Your task to perform on an android device: allow cookies in the chrome app Image 0: 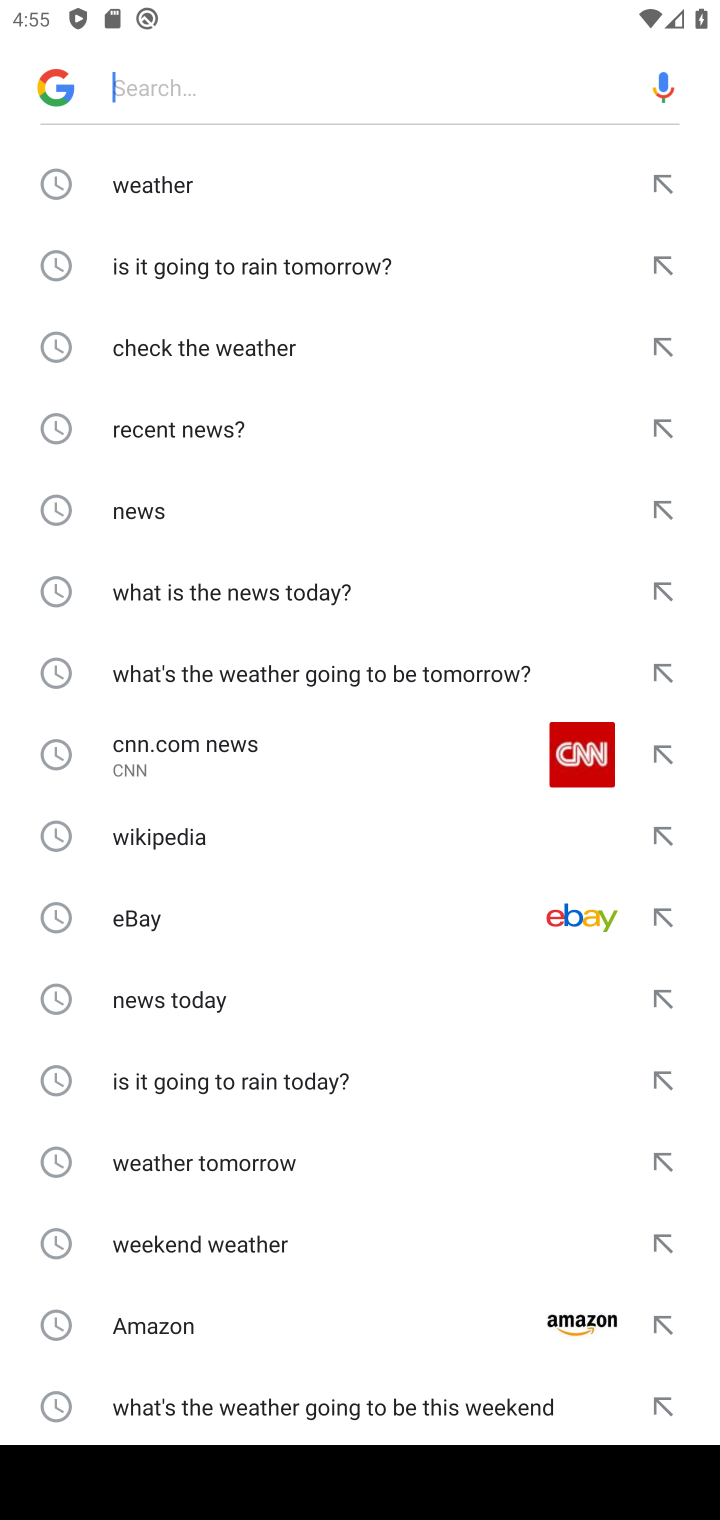
Step 0: press home button
Your task to perform on an android device: allow cookies in the chrome app Image 1: 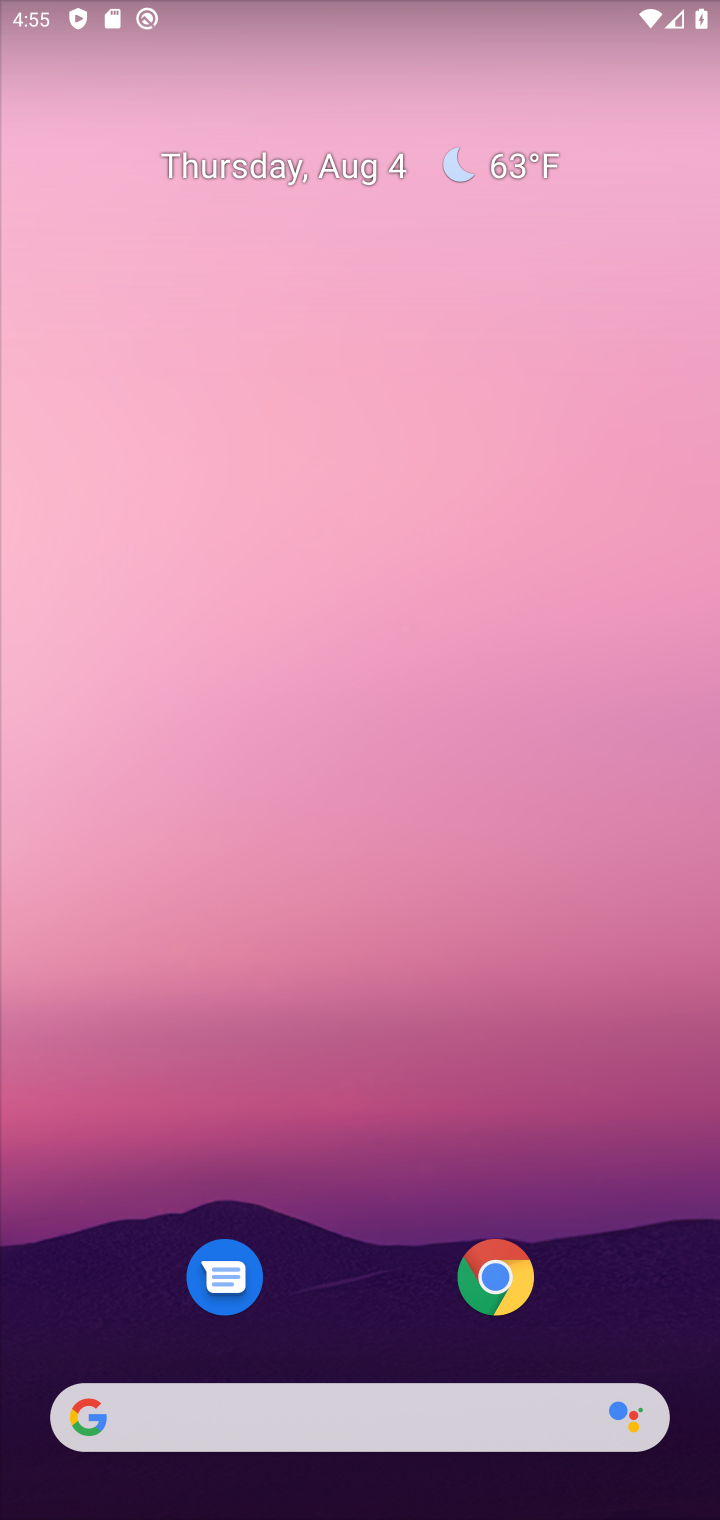
Step 1: drag from (365, 978) to (406, 601)
Your task to perform on an android device: allow cookies in the chrome app Image 2: 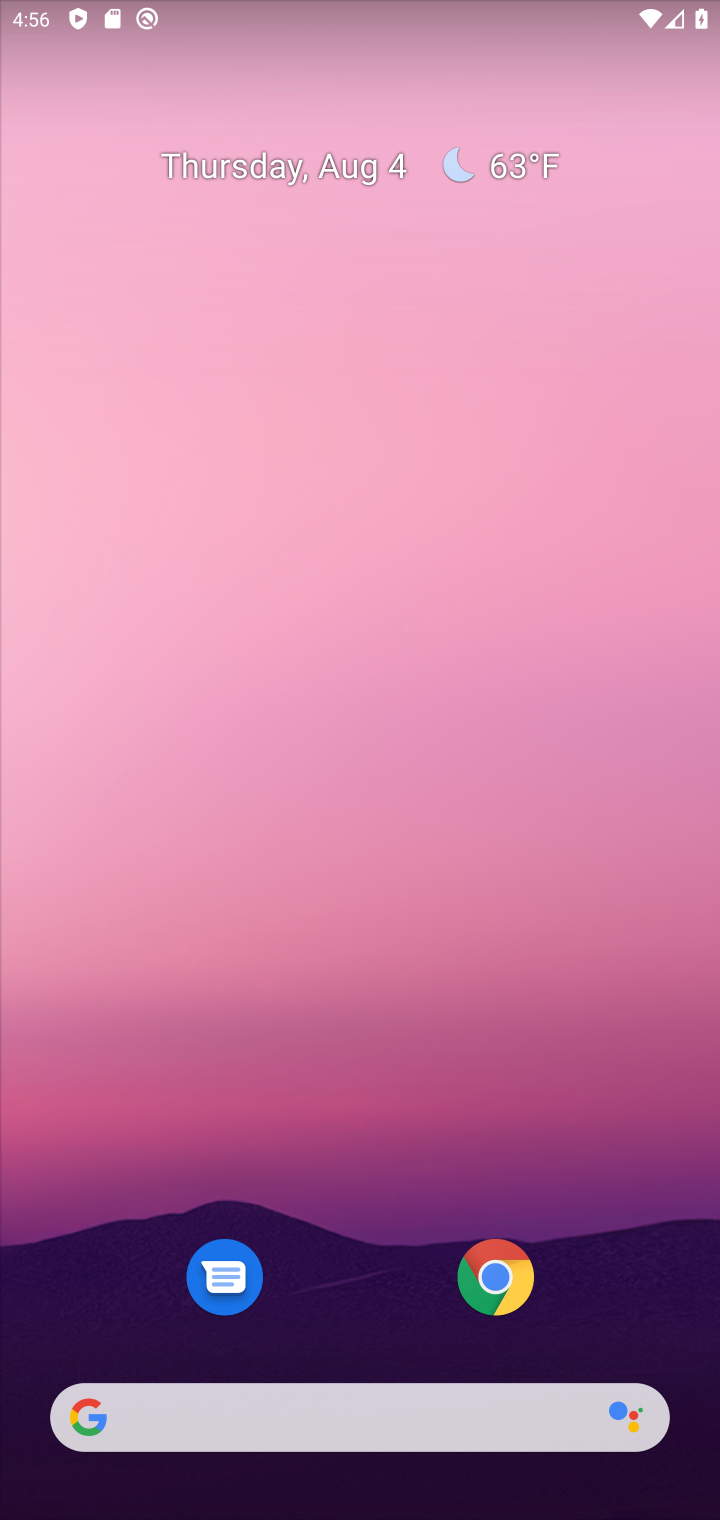
Step 2: drag from (485, 385) to (481, 97)
Your task to perform on an android device: allow cookies in the chrome app Image 3: 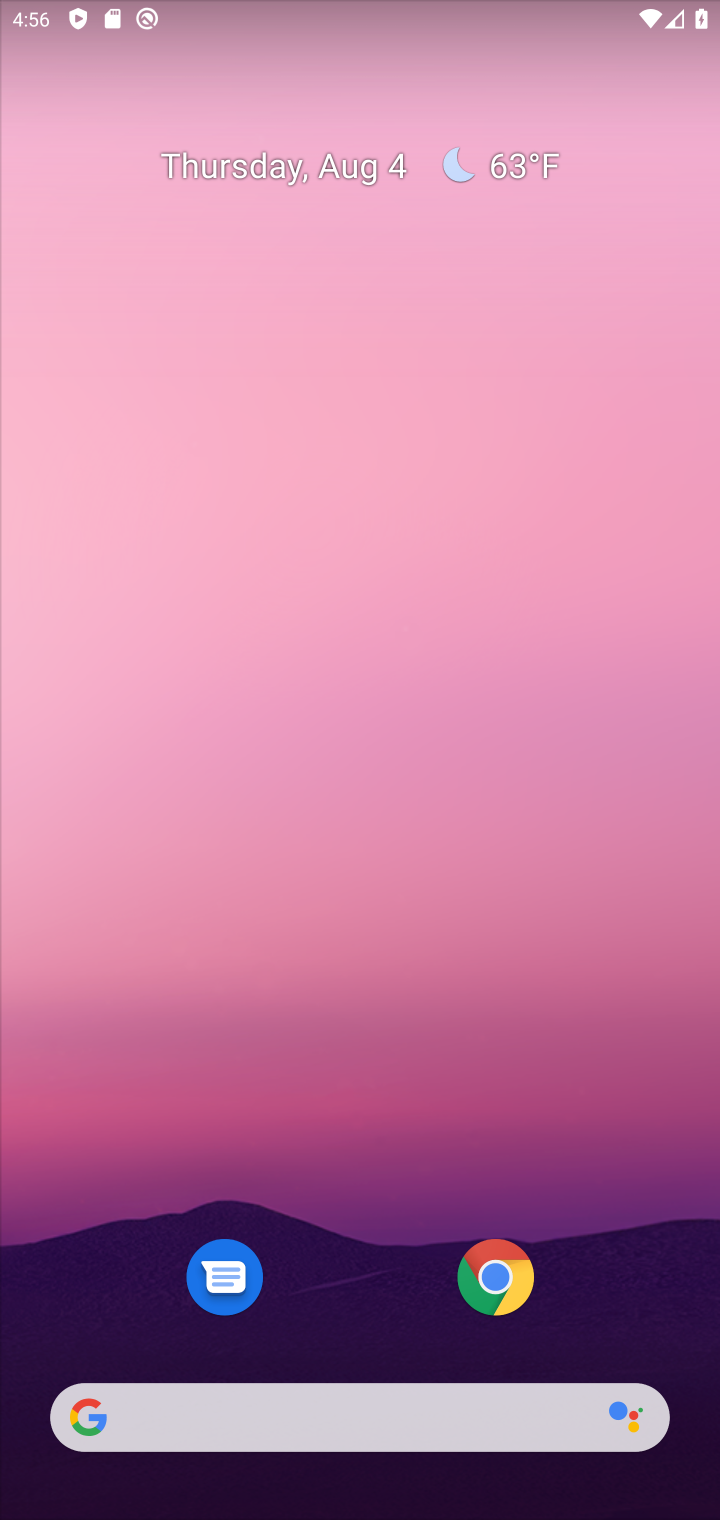
Step 3: drag from (377, 906) to (344, 179)
Your task to perform on an android device: allow cookies in the chrome app Image 4: 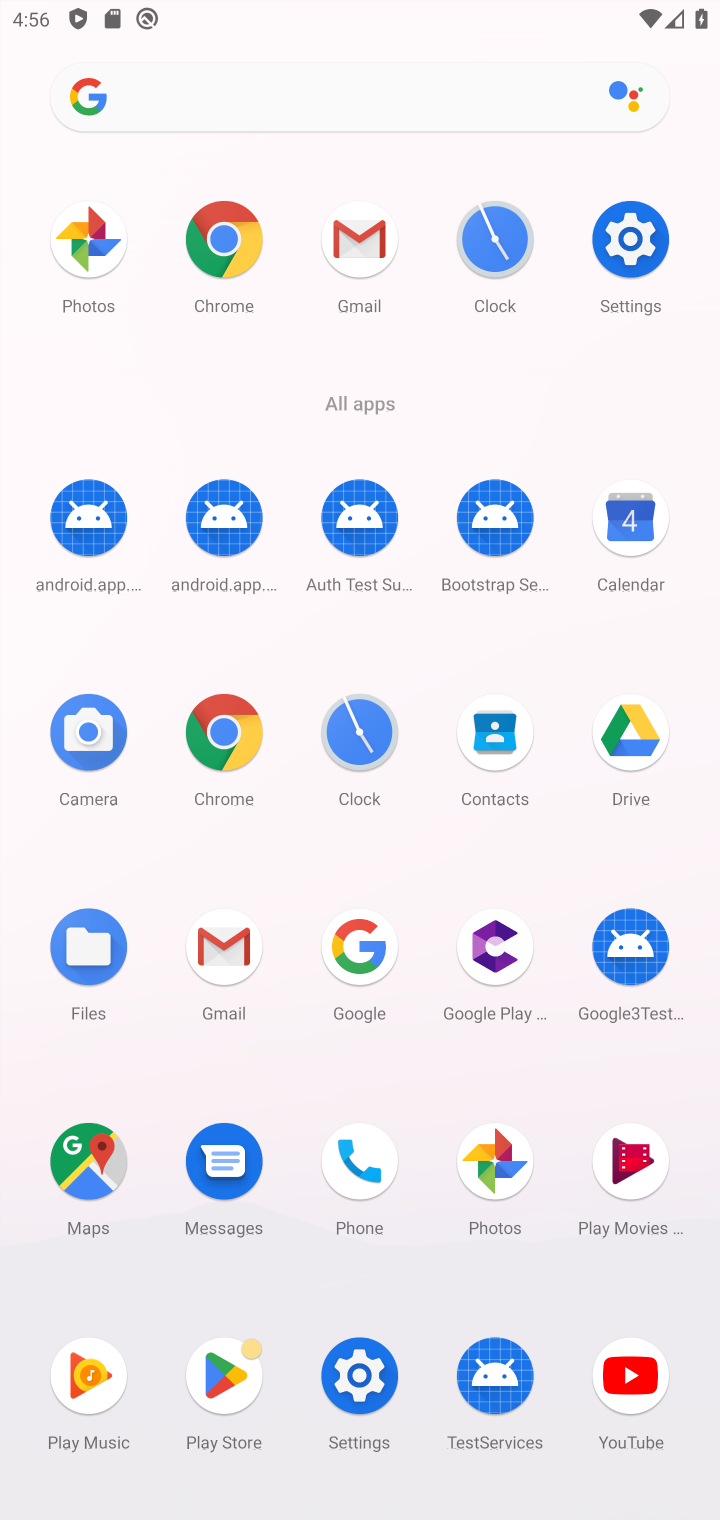
Step 4: click (197, 260)
Your task to perform on an android device: allow cookies in the chrome app Image 5: 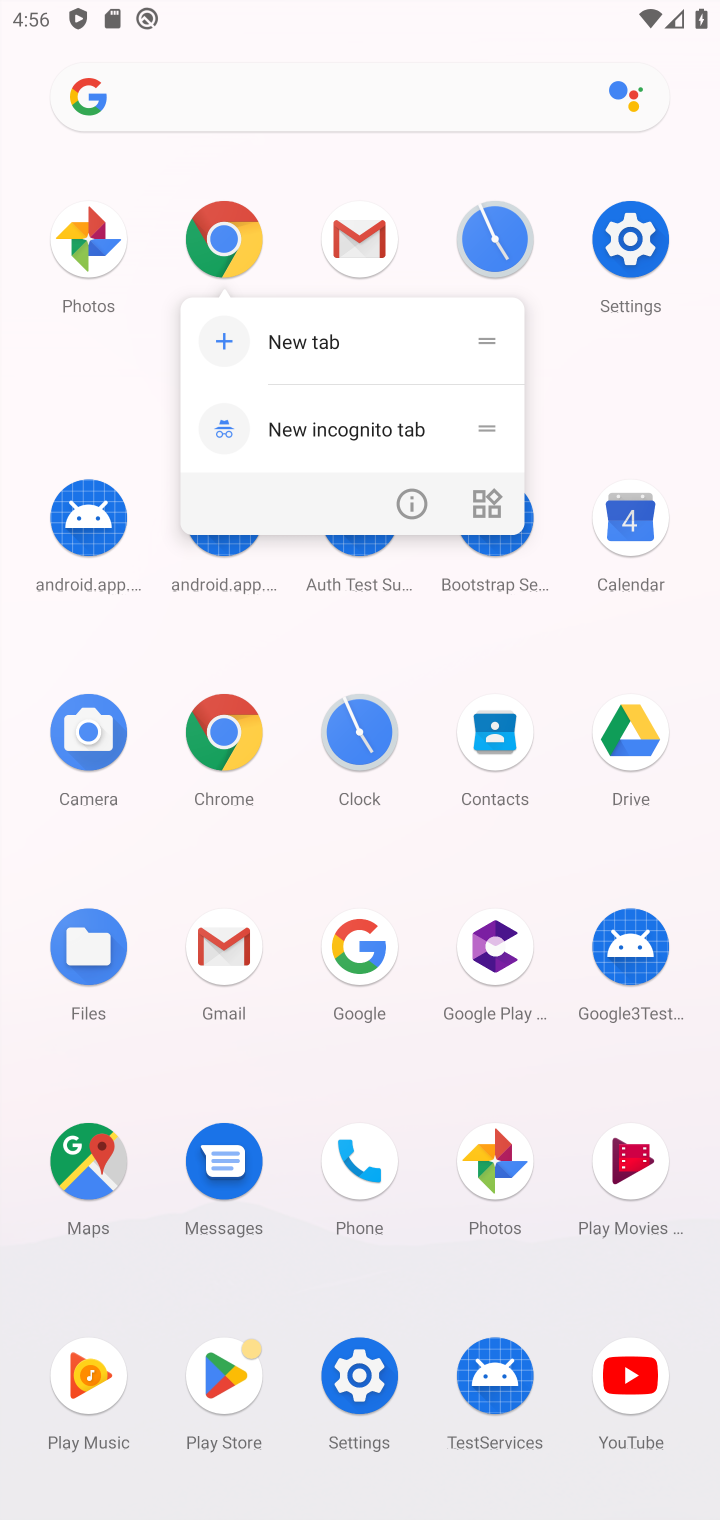
Step 5: click (197, 258)
Your task to perform on an android device: allow cookies in the chrome app Image 6: 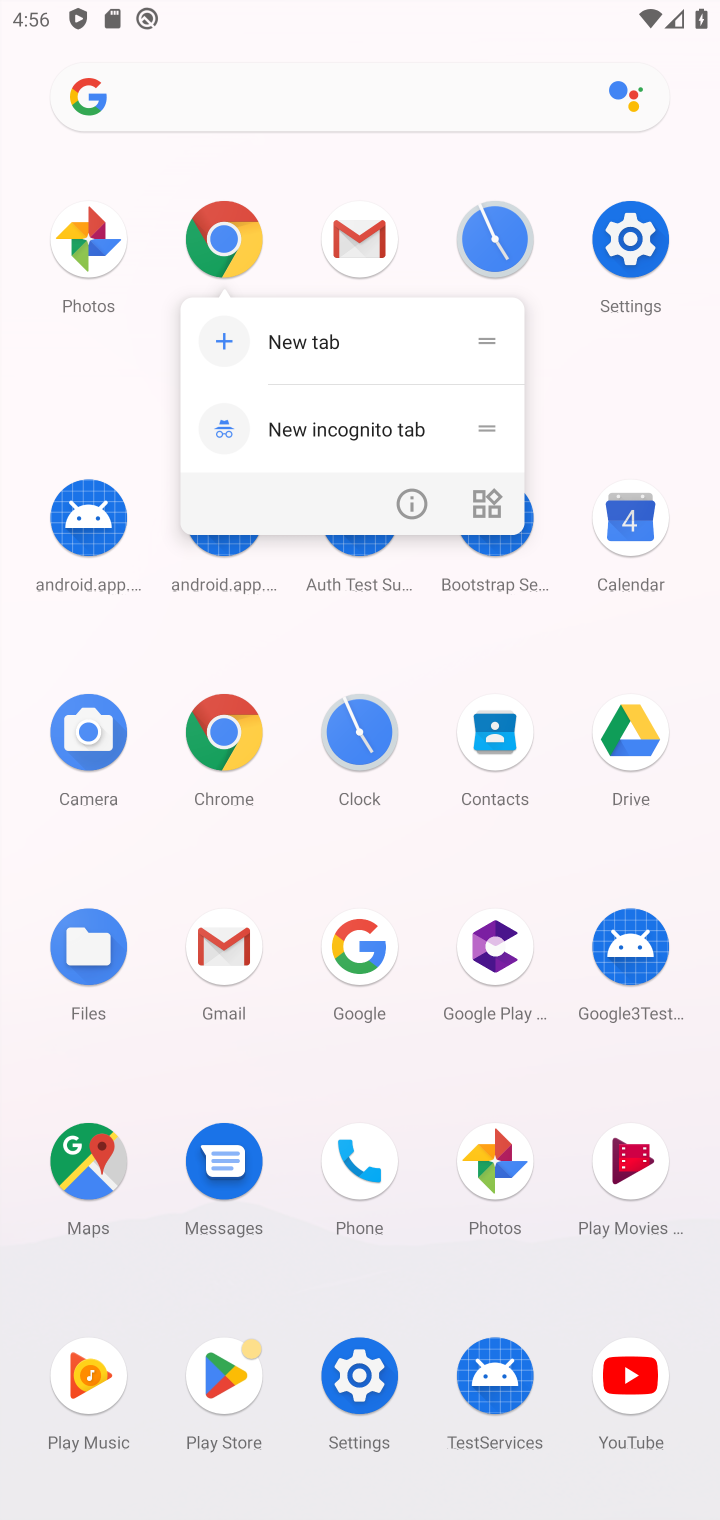
Step 6: click (197, 256)
Your task to perform on an android device: allow cookies in the chrome app Image 7: 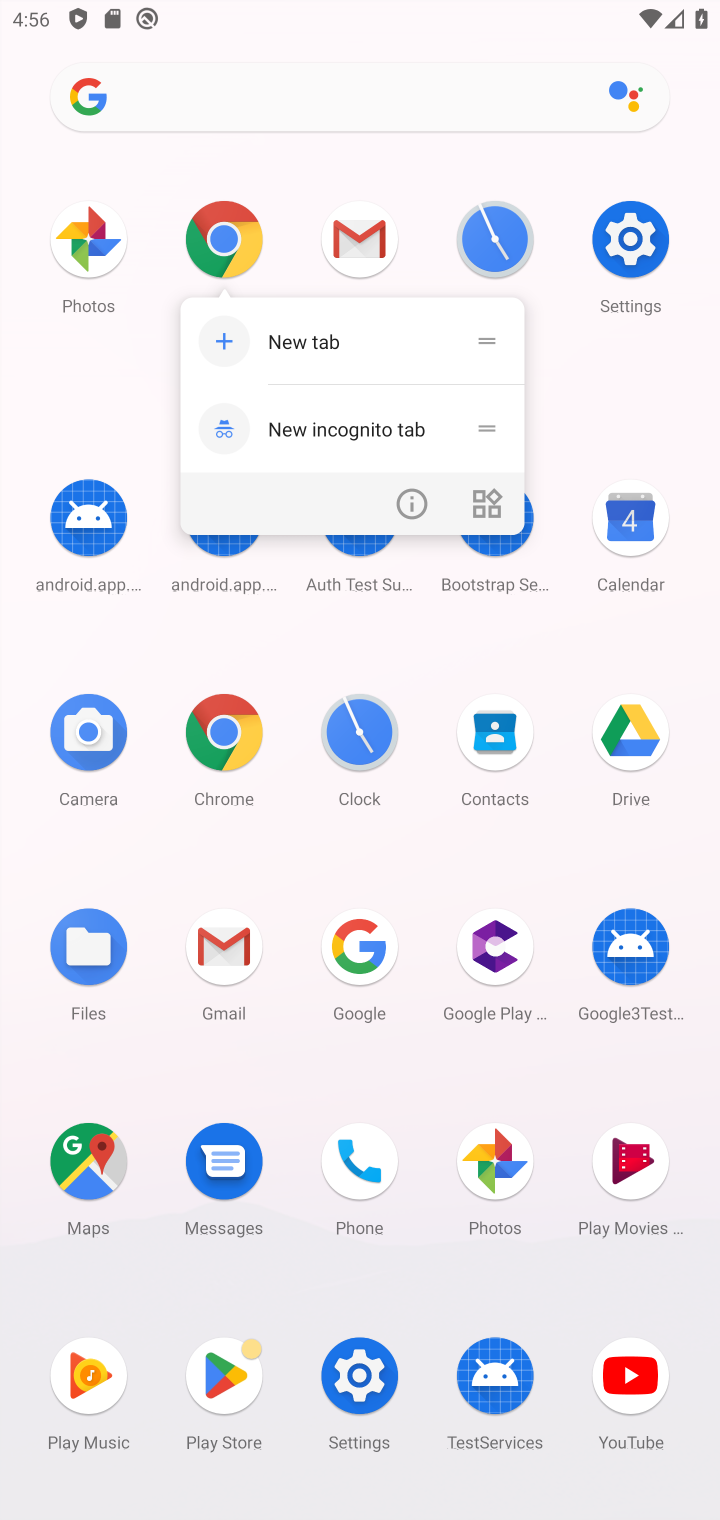
Step 7: click (197, 256)
Your task to perform on an android device: allow cookies in the chrome app Image 8: 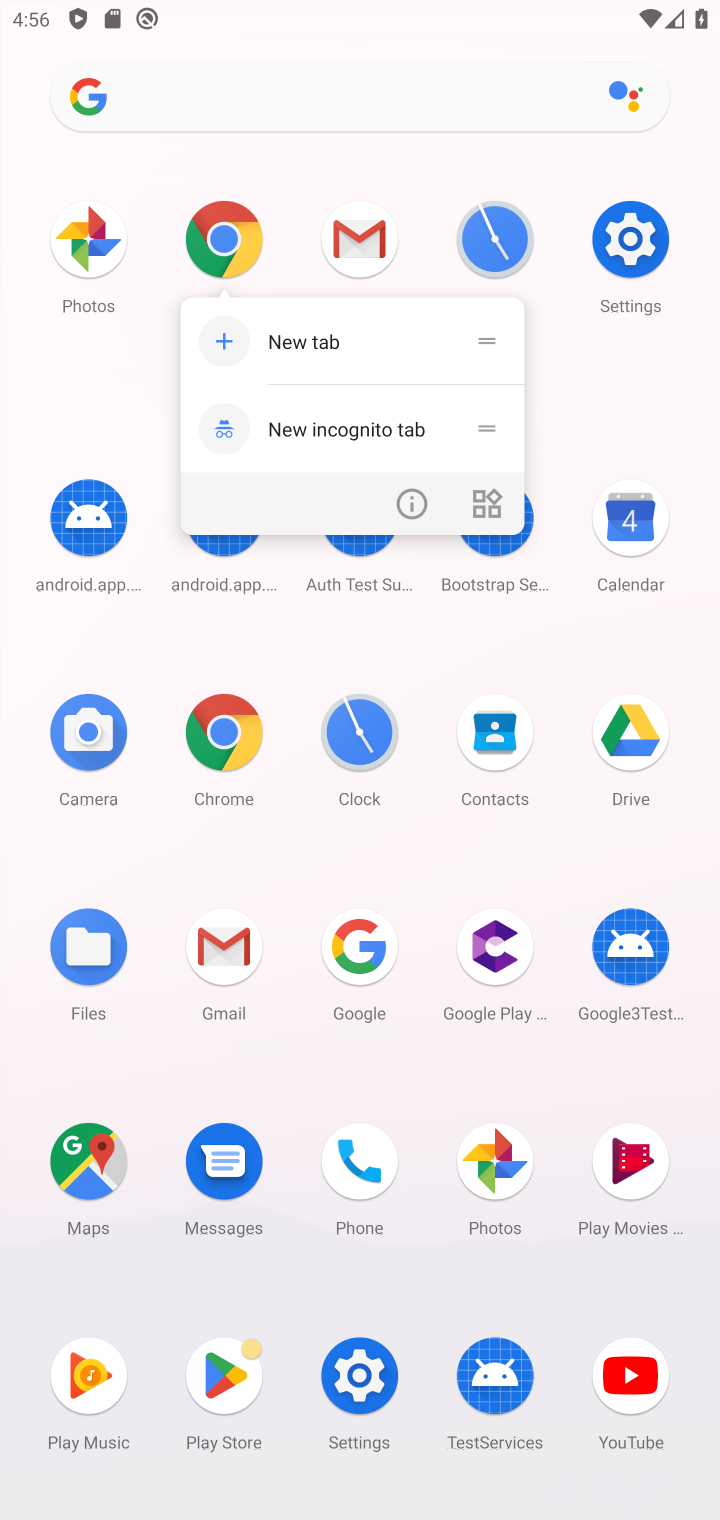
Step 8: click (197, 247)
Your task to perform on an android device: allow cookies in the chrome app Image 9: 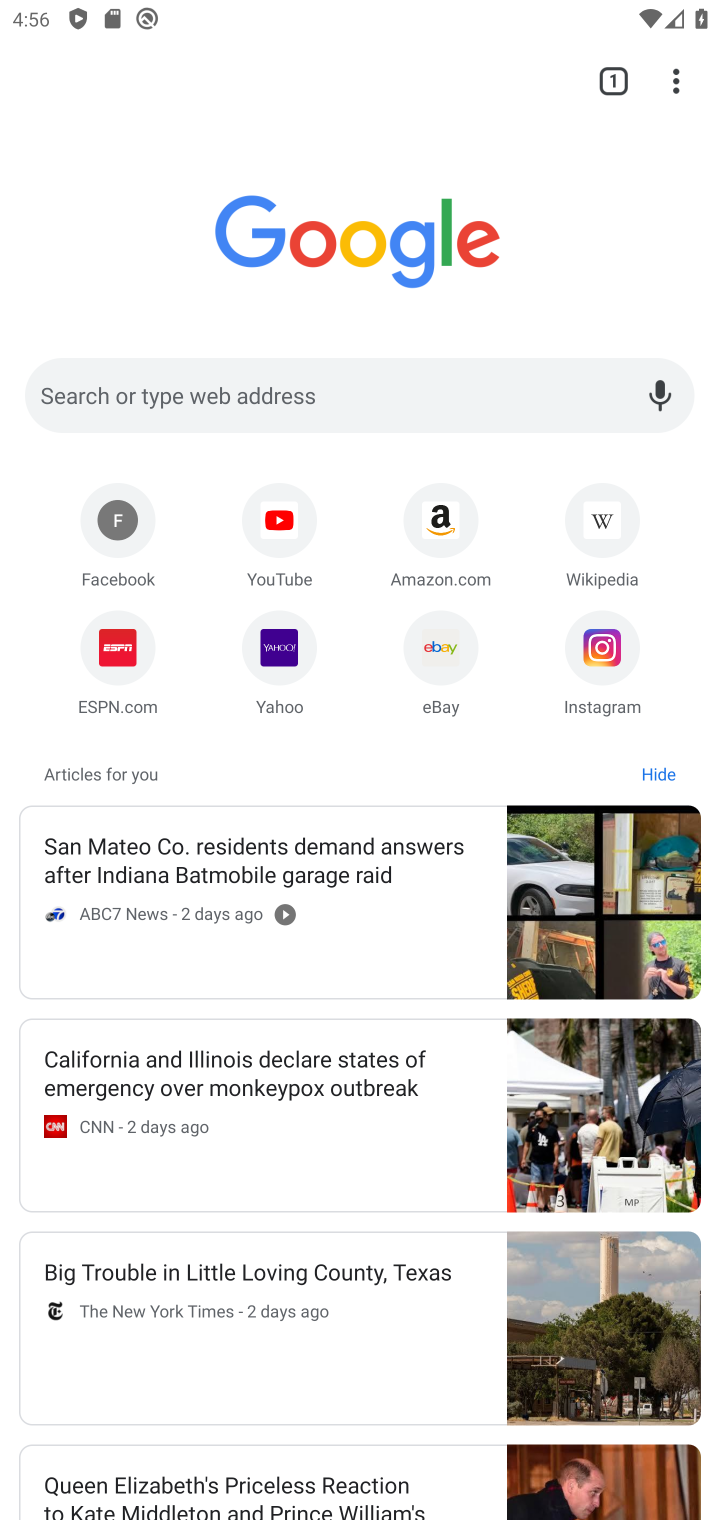
Step 9: drag from (672, 82) to (412, 689)
Your task to perform on an android device: allow cookies in the chrome app Image 10: 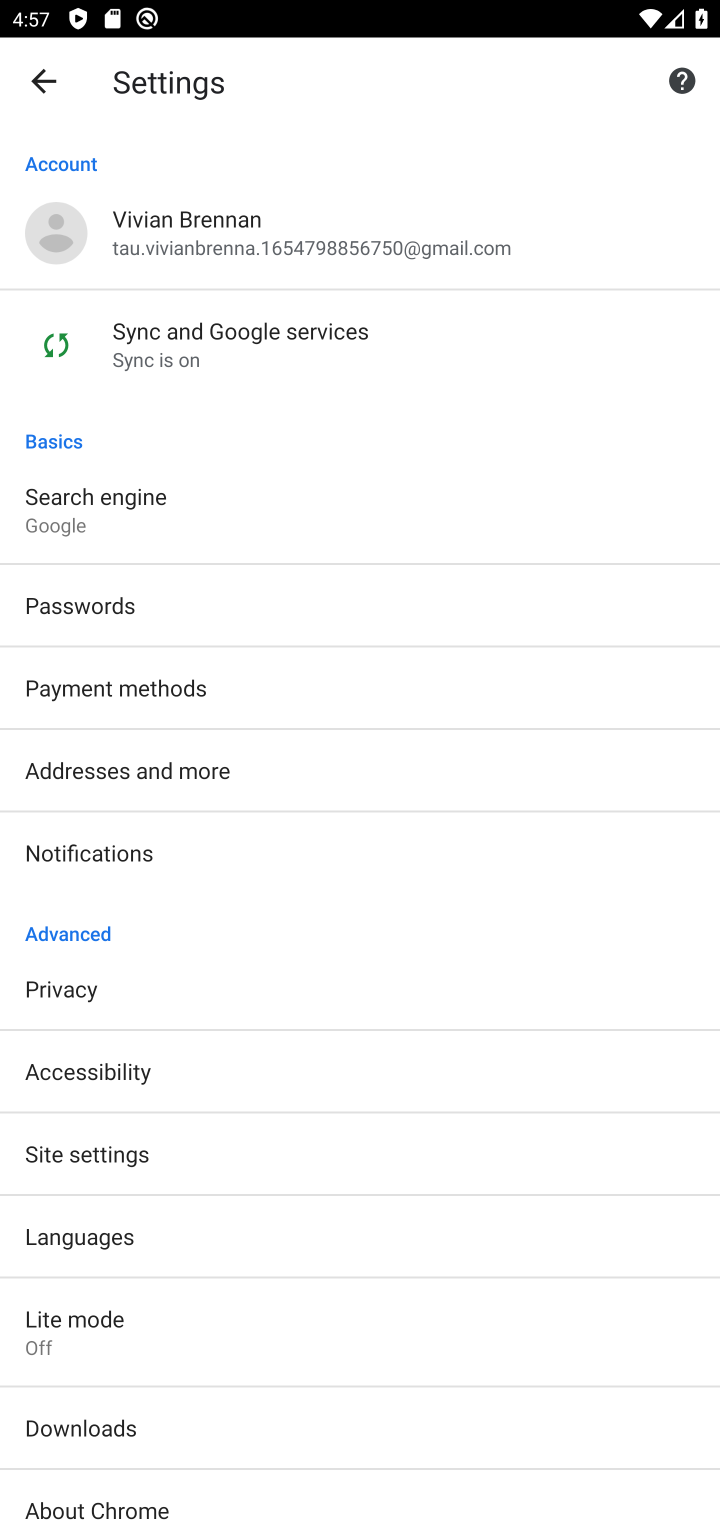
Step 10: drag from (281, 1335) to (254, 634)
Your task to perform on an android device: allow cookies in the chrome app Image 11: 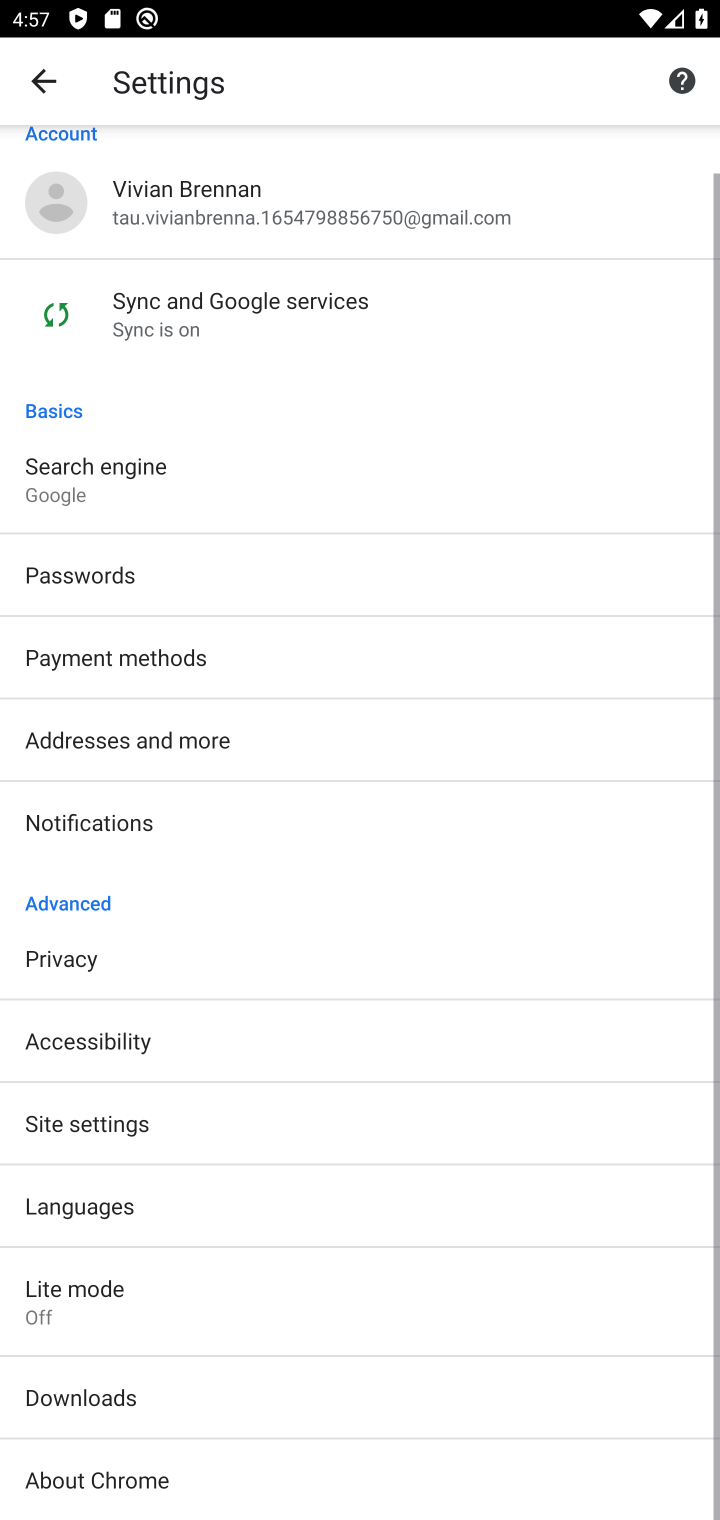
Step 11: click (187, 1130)
Your task to perform on an android device: allow cookies in the chrome app Image 12: 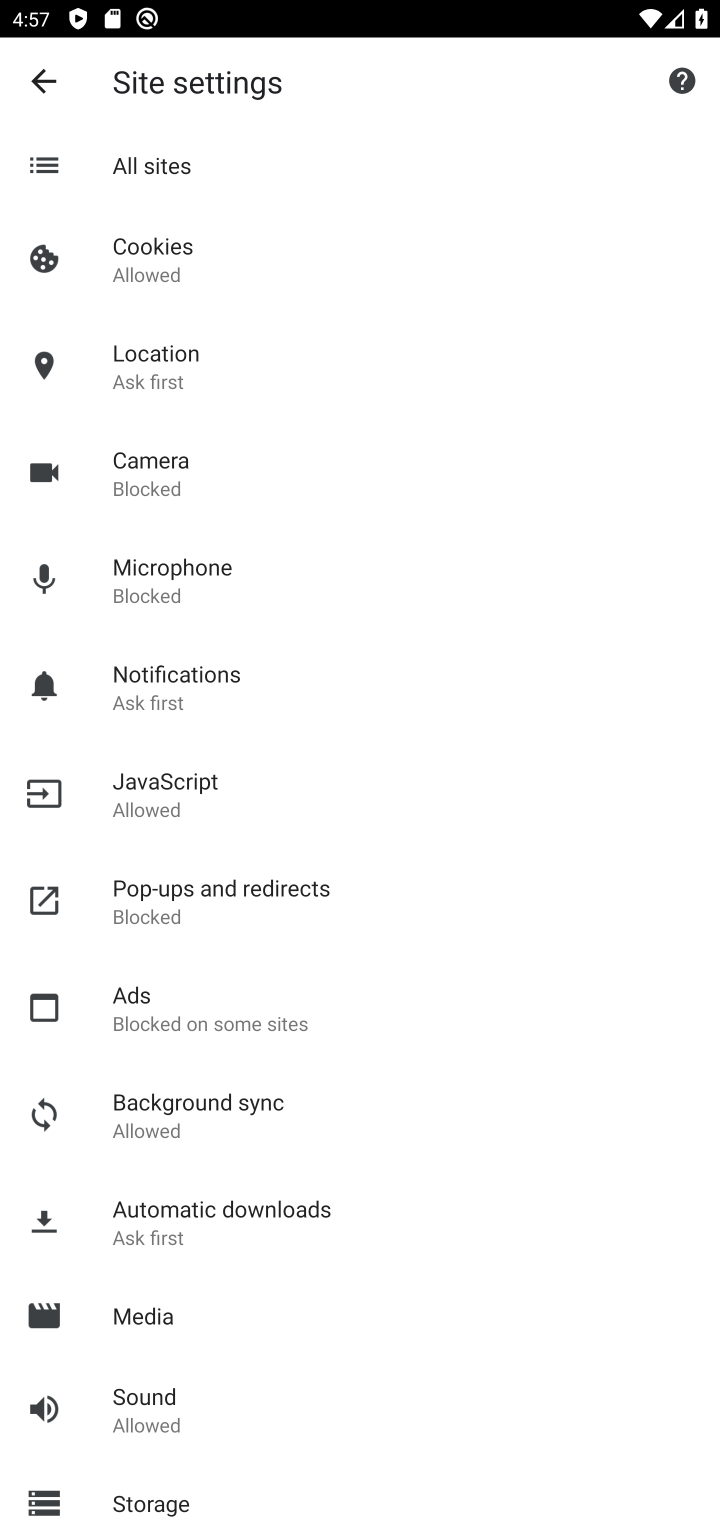
Step 12: click (174, 281)
Your task to perform on an android device: allow cookies in the chrome app Image 13: 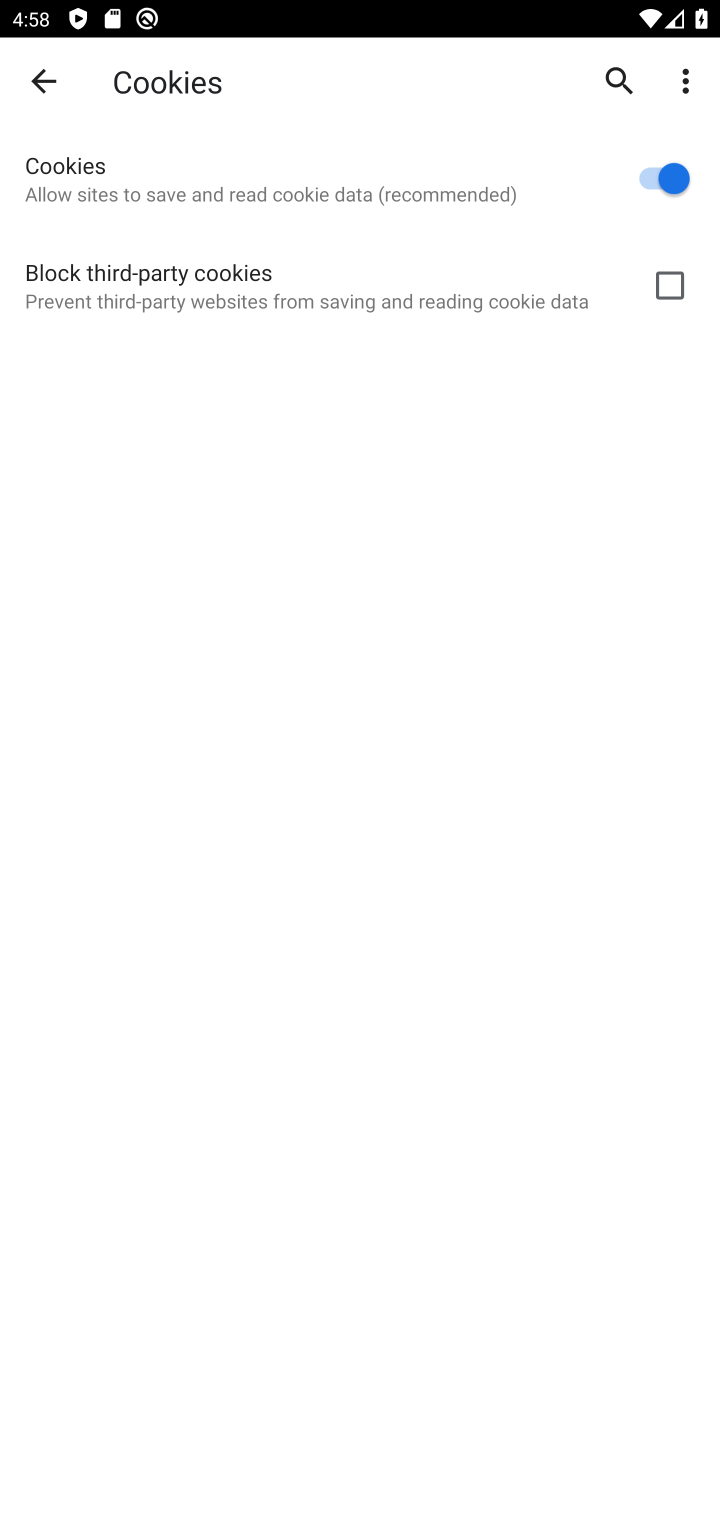
Step 13: task complete